Your task to perform on an android device: move an email to a new category in the gmail app Image 0: 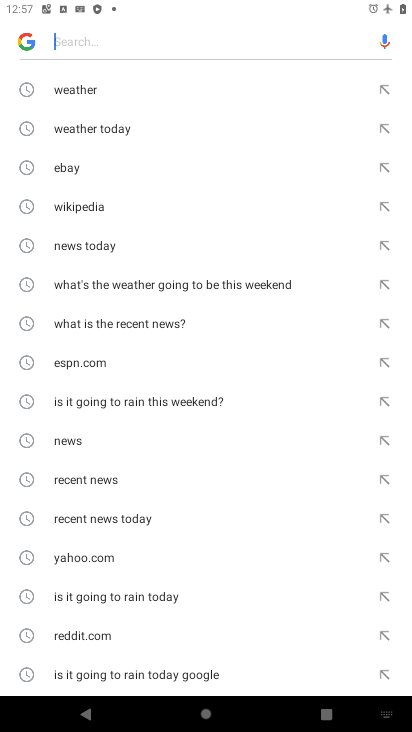
Step 0: press home button
Your task to perform on an android device: move an email to a new category in the gmail app Image 1: 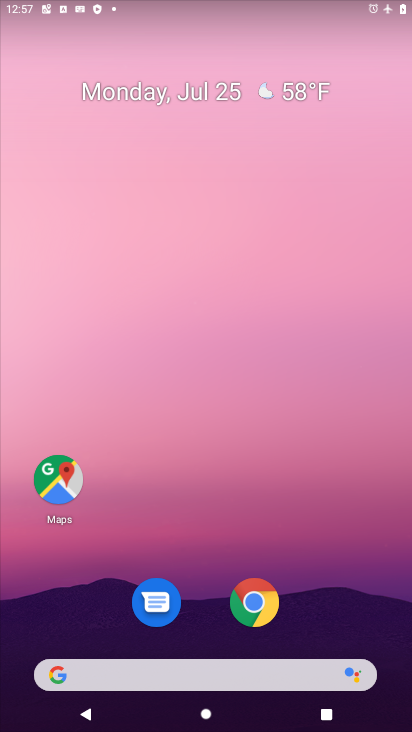
Step 1: drag from (188, 557) to (150, 19)
Your task to perform on an android device: move an email to a new category in the gmail app Image 2: 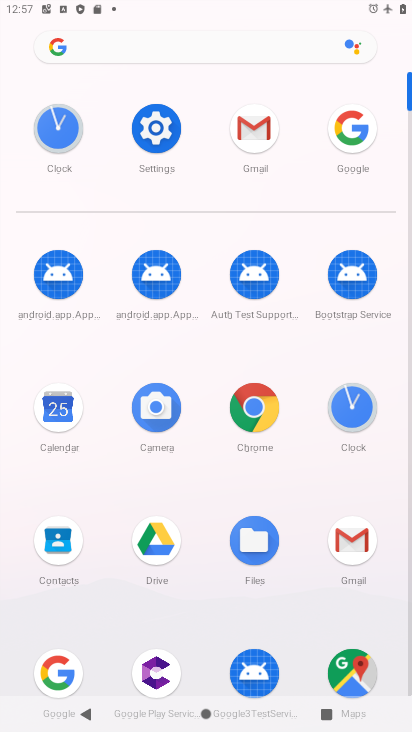
Step 2: click (254, 159)
Your task to perform on an android device: move an email to a new category in the gmail app Image 3: 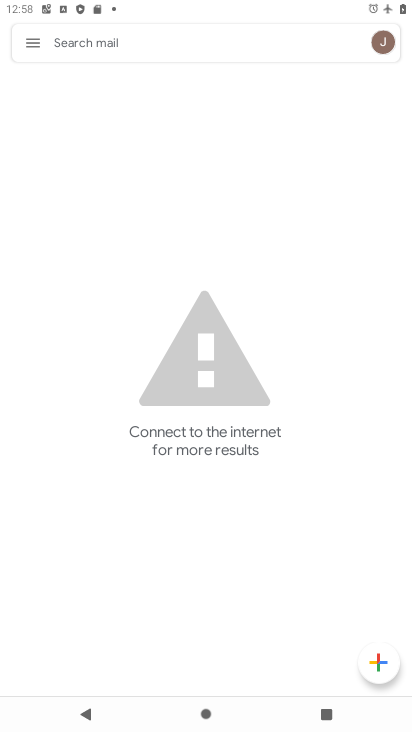
Step 3: click (30, 50)
Your task to perform on an android device: move an email to a new category in the gmail app Image 4: 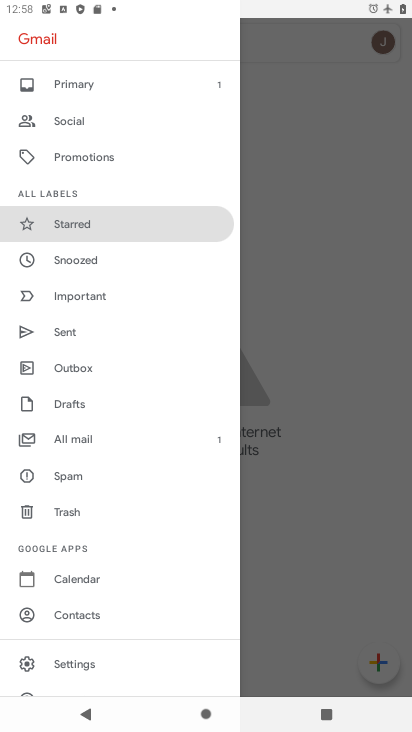
Step 4: click (78, 443)
Your task to perform on an android device: move an email to a new category in the gmail app Image 5: 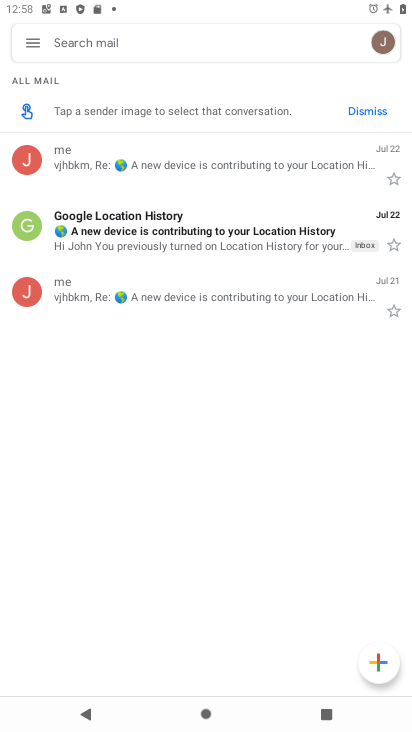
Step 5: click (103, 212)
Your task to perform on an android device: move an email to a new category in the gmail app Image 6: 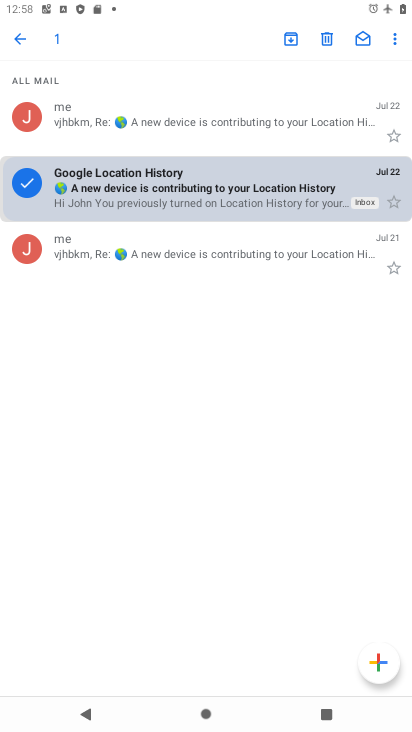
Step 6: click (389, 43)
Your task to perform on an android device: move an email to a new category in the gmail app Image 7: 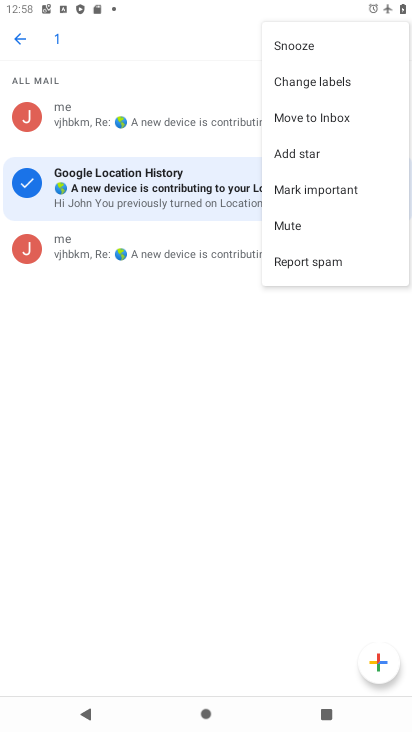
Step 7: click (325, 123)
Your task to perform on an android device: move an email to a new category in the gmail app Image 8: 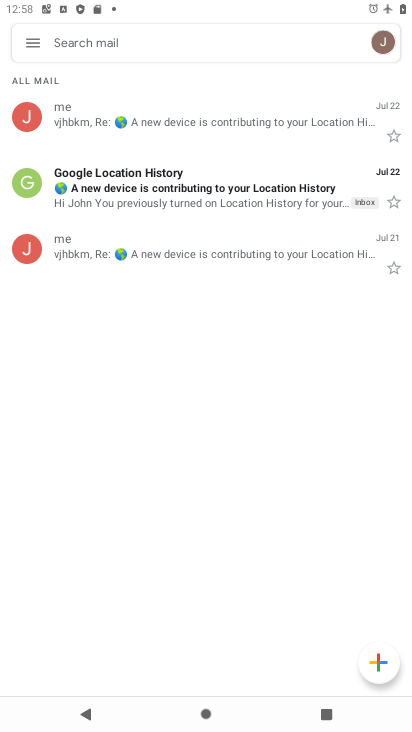
Step 8: task complete